Your task to perform on an android device: turn smart compose on in the gmail app Image 0: 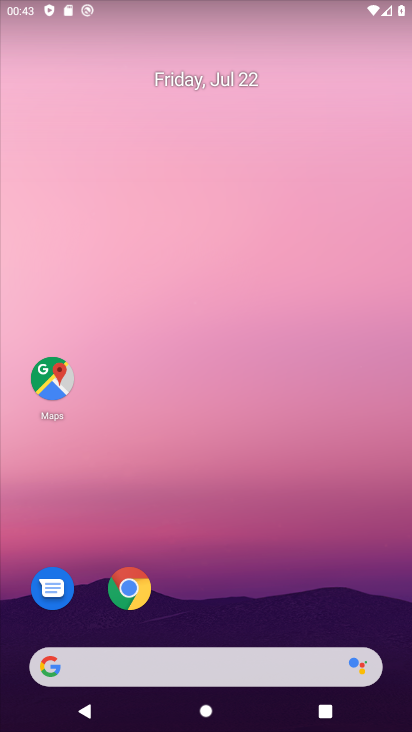
Step 0: drag from (181, 601) to (249, 14)
Your task to perform on an android device: turn smart compose on in the gmail app Image 1: 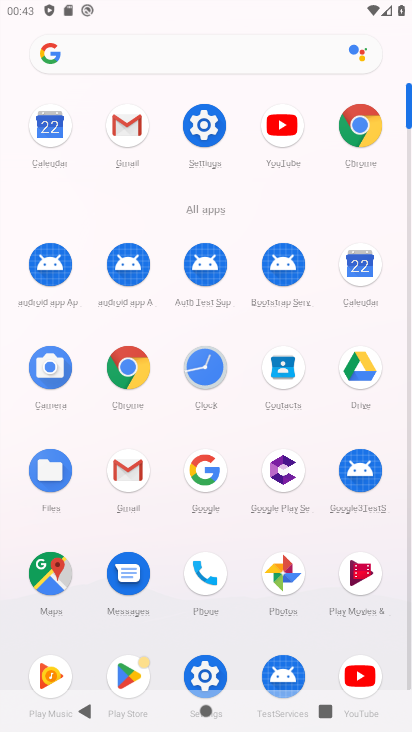
Step 1: click (125, 121)
Your task to perform on an android device: turn smart compose on in the gmail app Image 2: 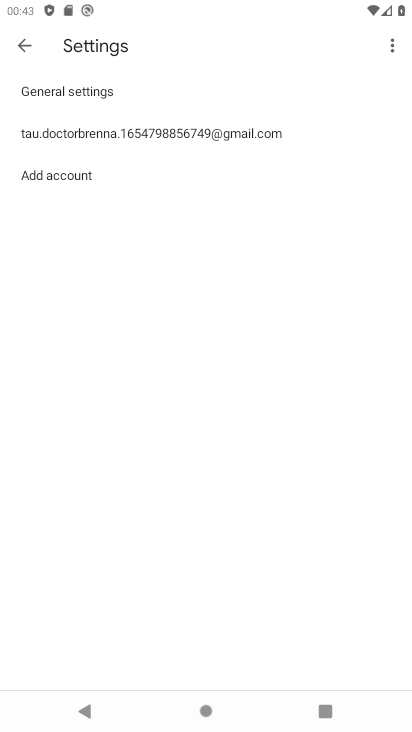
Step 2: click (106, 138)
Your task to perform on an android device: turn smart compose on in the gmail app Image 3: 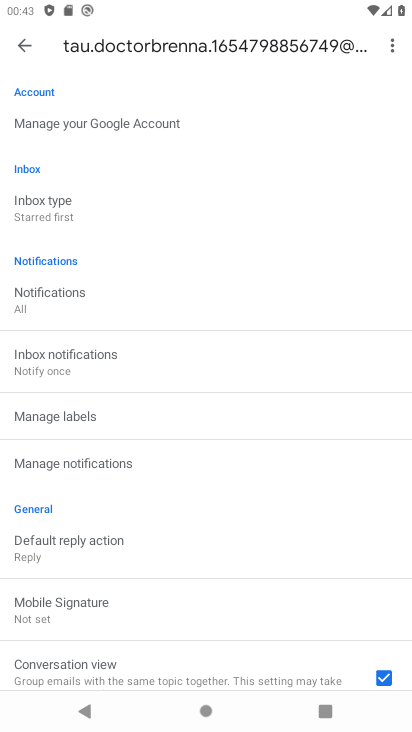
Step 3: task complete